Your task to perform on an android device: open chrome and create a bookmark for the current page Image 0: 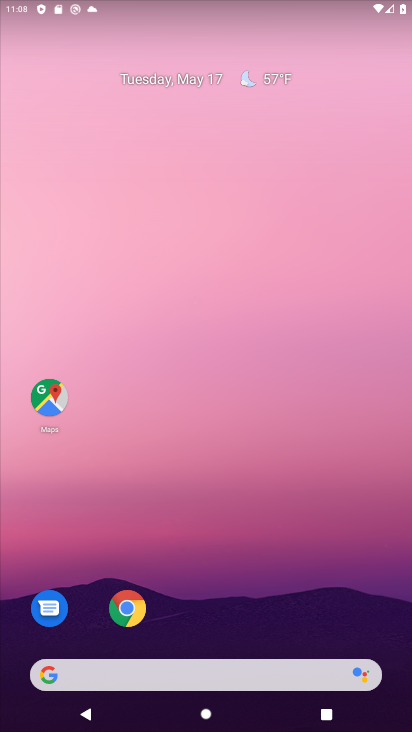
Step 0: click (126, 604)
Your task to perform on an android device: open chrome and create a bookmark for the current page Image 1: 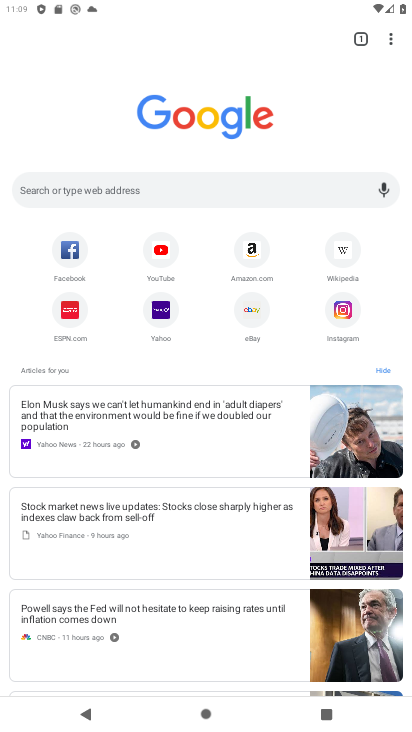
Step 1: click (388, 39)
Your task to perform on an android device: open chrome and create a bookmark for the current page Image 2: 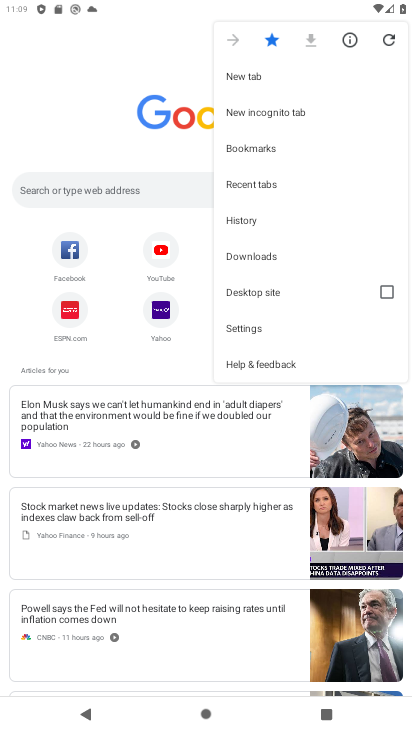
Step 2: task complete